Your task to perform on an android device: Open Google Maps and go to "Timeline" Image 0: 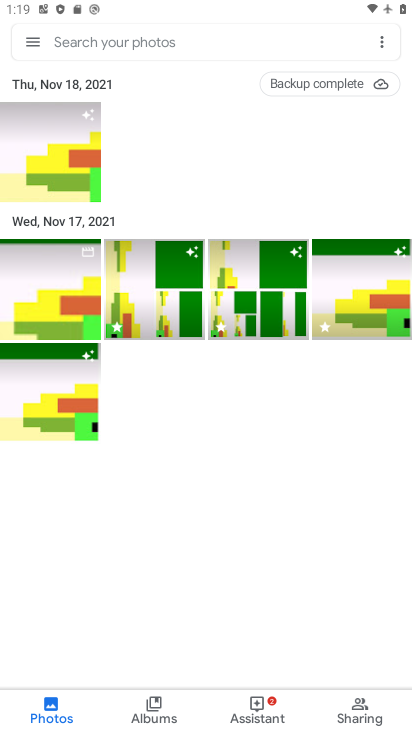
Step 0: press home button
Your task to perform on an android device: Open Google Maps and go to "Timeline" Image 1: 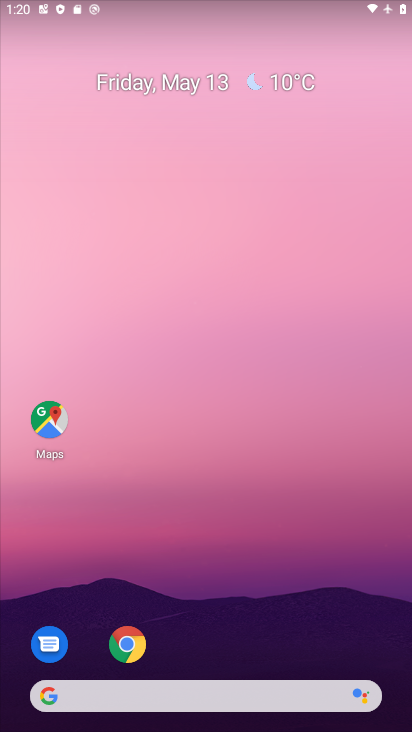
Step 1: drag from (209, 731) to (203, 247)
Your task to perform on an android device: Open Google Maps and go to "Timeline" Image 2: 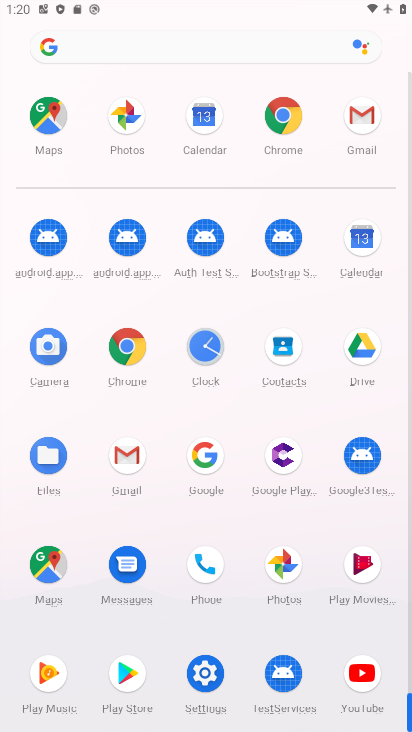
Step 2: click (49, 564)
Your task to perform on an android device: Open Google Maps and go to "Timeline" Image 3: 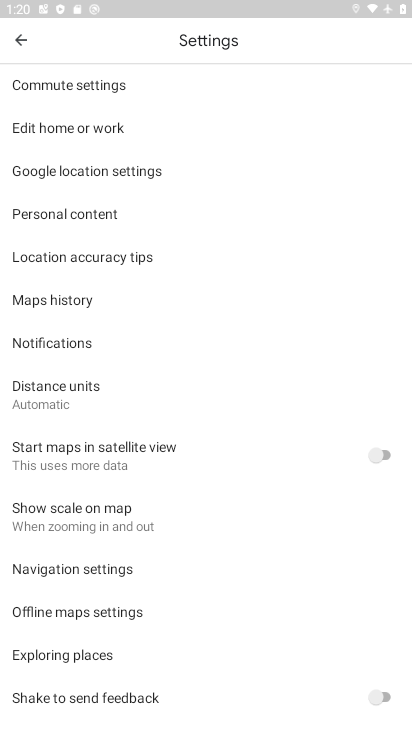
Step 3: click (20, 37)
Your task to perform on an android device: Open Google Maps and go to "Timeline" Image 4: 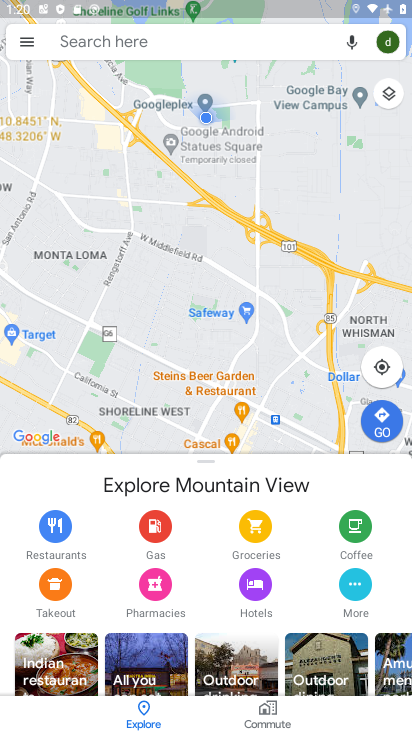
Step 4: click (22, 42)
Your task to perform on an android device: Open Google Maps and go to "Timeline" Image 5: 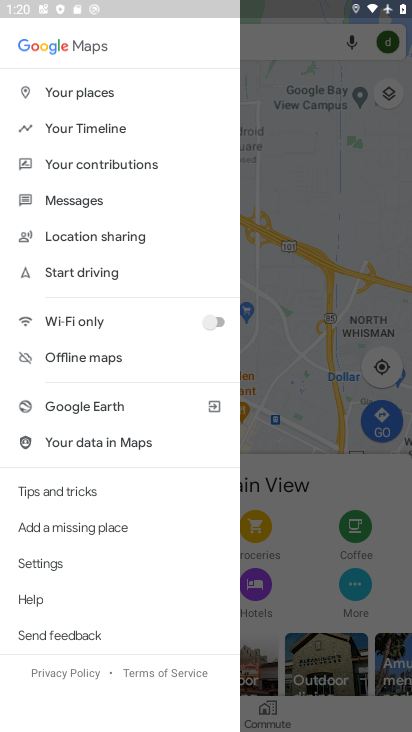
Step 5: click (76, 127)
Your task to perform on an android device: Open Google Maps and go to "Timeline" Image 6: 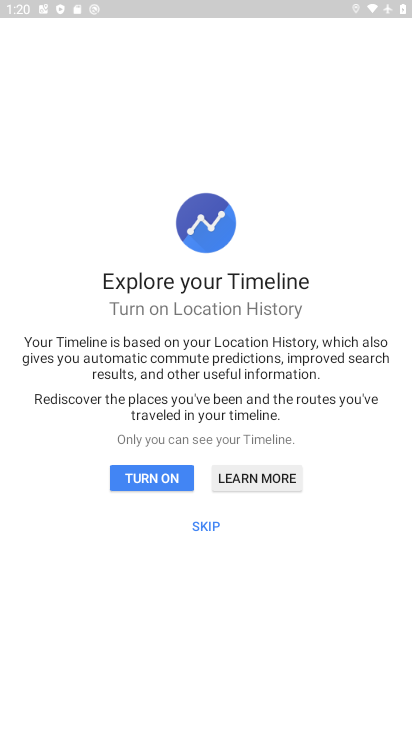
Step 6: click (200, 528)
Your task to perform on an android device: Open Google Maps and go to "Timeline" Image 7: 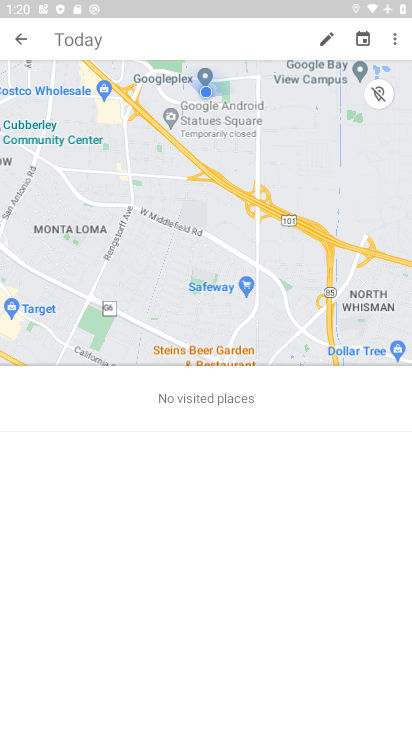
Step 7: task complete